Your task to perform on an android device: Go to Maps Image 0: 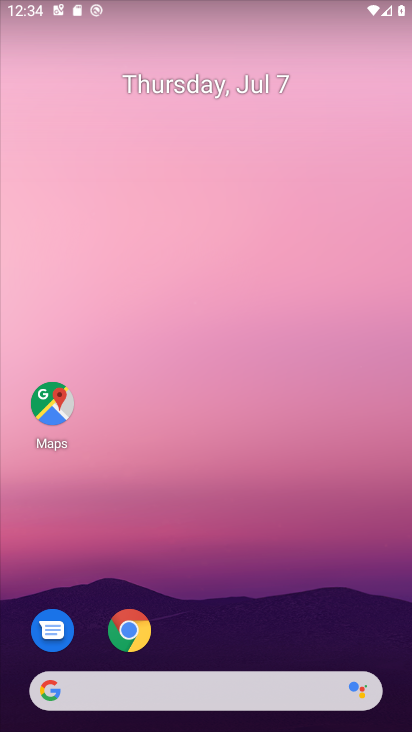
Step 0: drag from (196, 649) to (196, 304)
Your task to perform on an android device: Go to Maps Image 1: 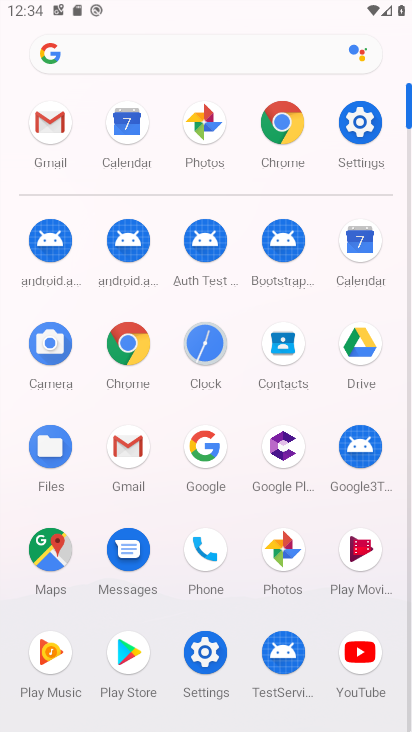
Step 1: click (54, 553)
Your task to perform on an android device: Go to Maps Image 2: 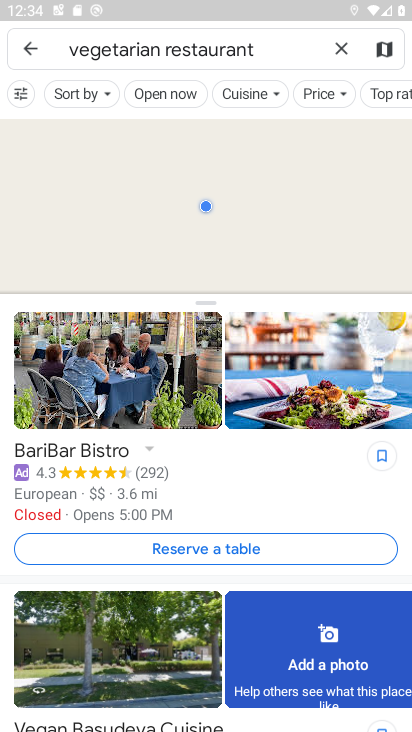
Step 2: click (337, 47)
Your task to perform on an android device: Go to Maps Image 3: 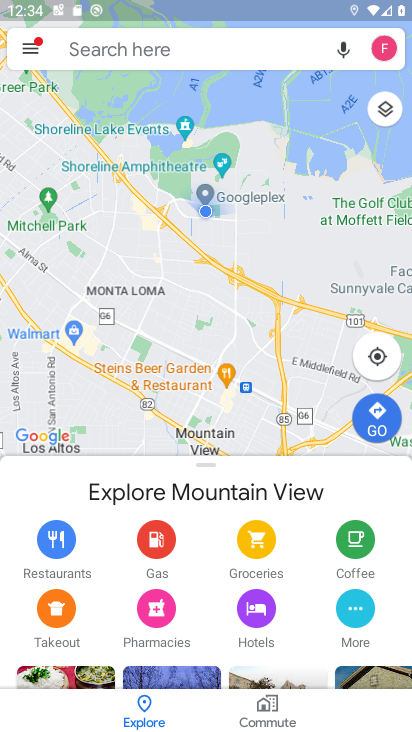
Step 3: task complete